Your task to perform on an android device: Do I have any events tomorrow? Image 0: 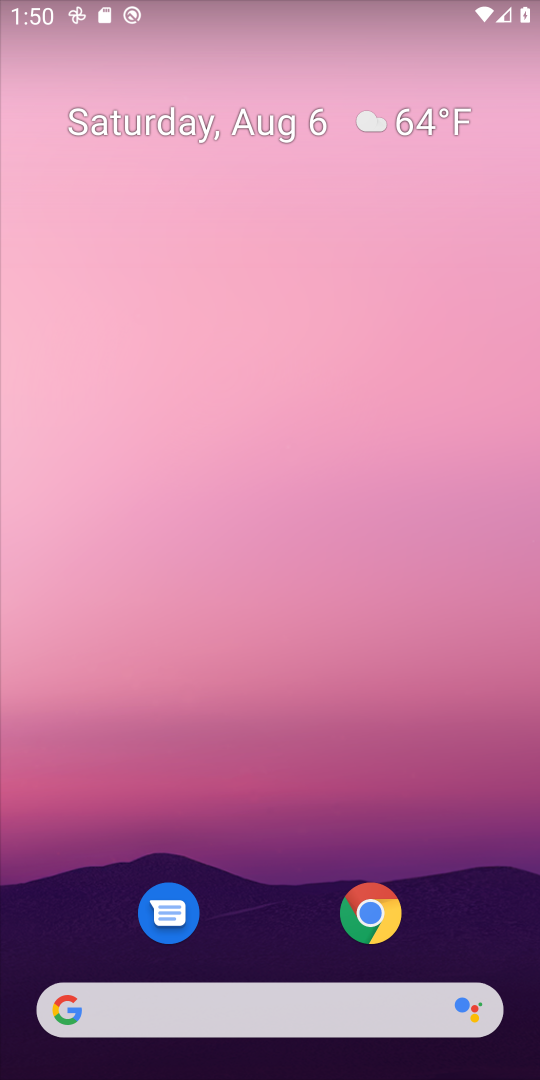
Step 0: press home button
Your task to perform on an android device: Do I have any events tomorrow? Image 1: 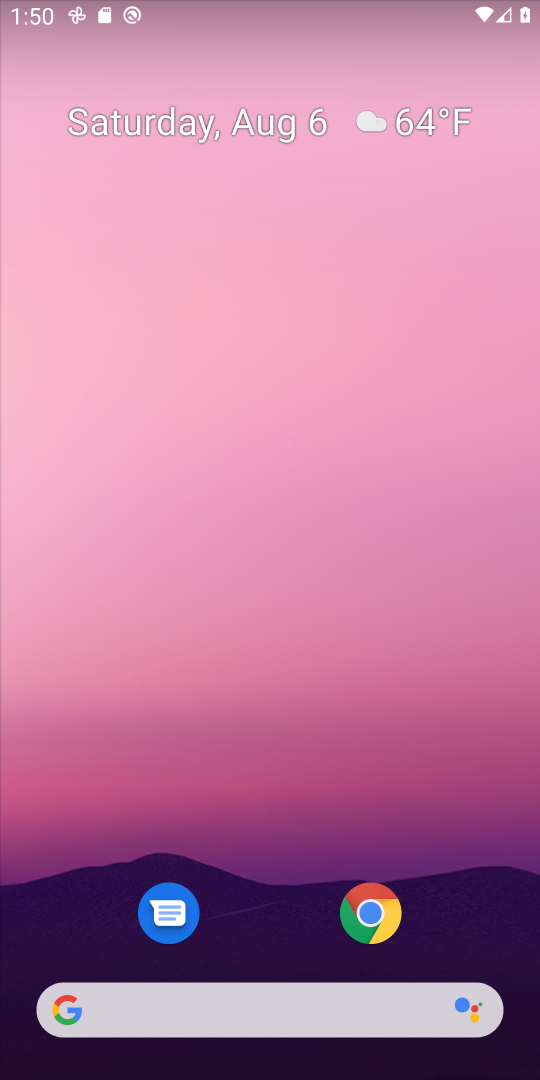
Step 1: drag from (448, 926) to (473, 364)
Your task to perform on an android device: Do I have any events tomorrow? Image 2: 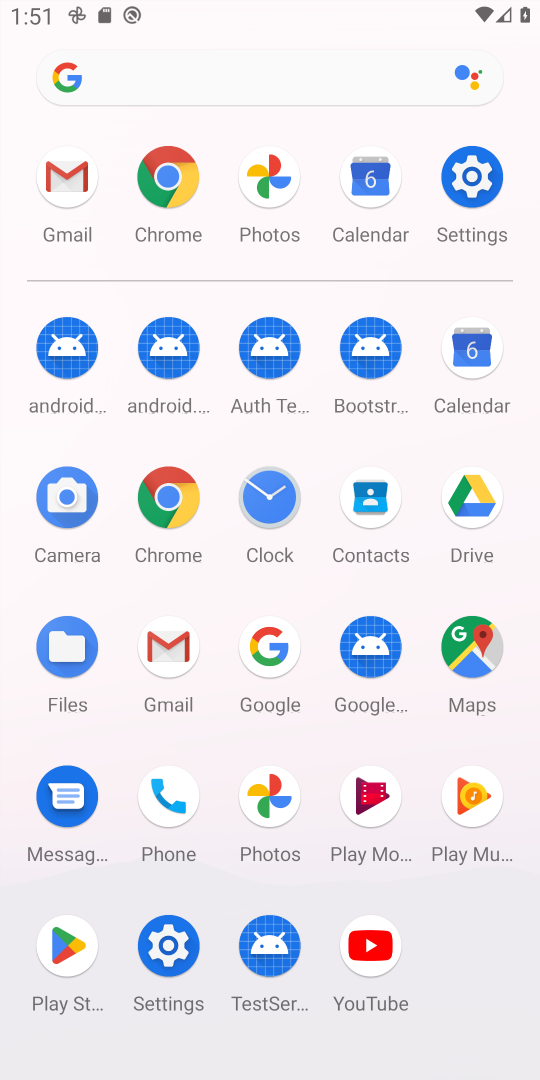
Step 2: click (470, 353)
Your task to perform on an android device: Do I have any events tomorrow? Image 3: 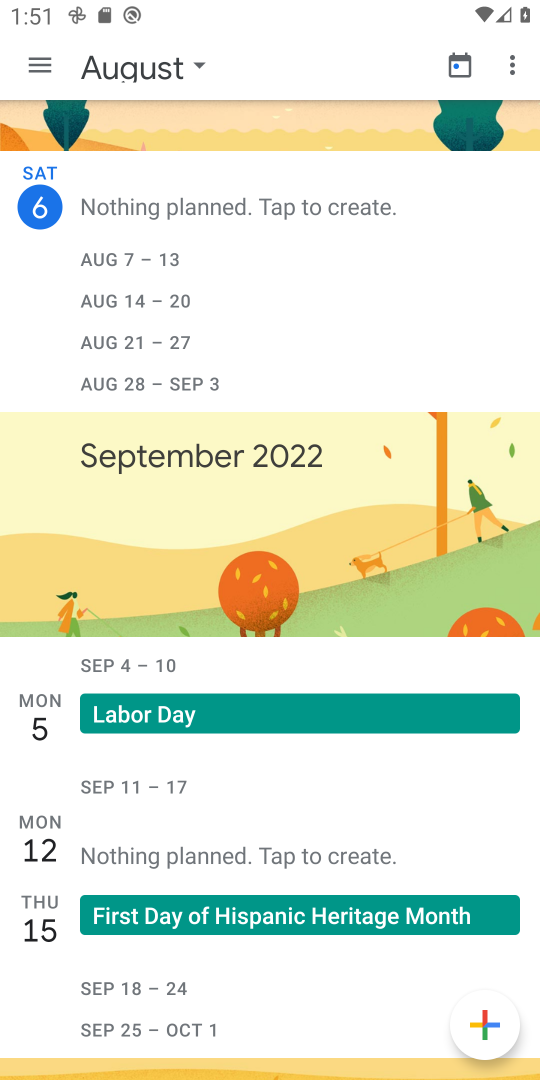
Step 3: click (199, 53)
Your task to perform on an android device: Do I have any events tomorrow? Image 4: 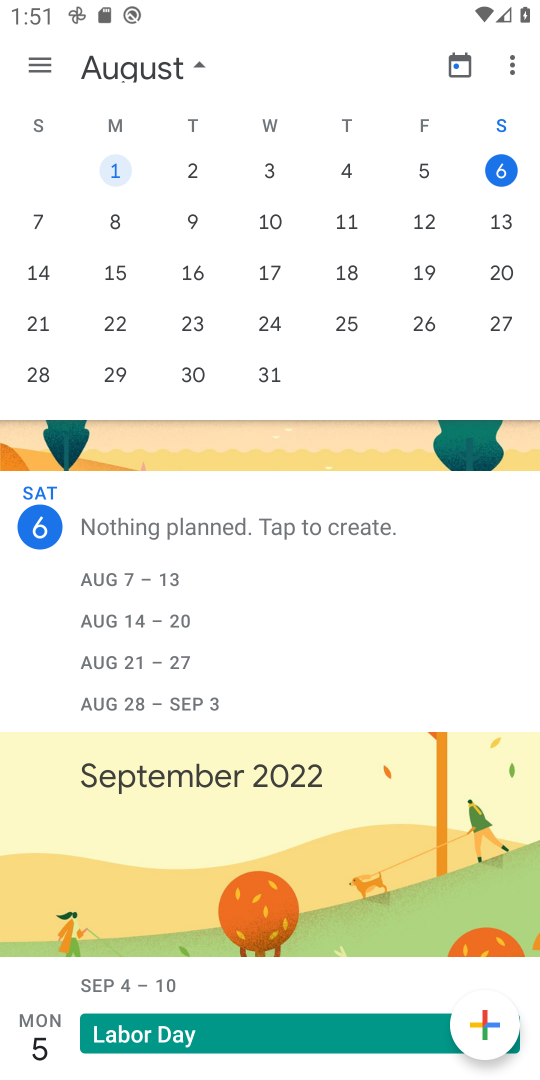
Step 4: click (35, 226)
Your task to perform on an android device: Do I have any events tomorrow? Image 5: 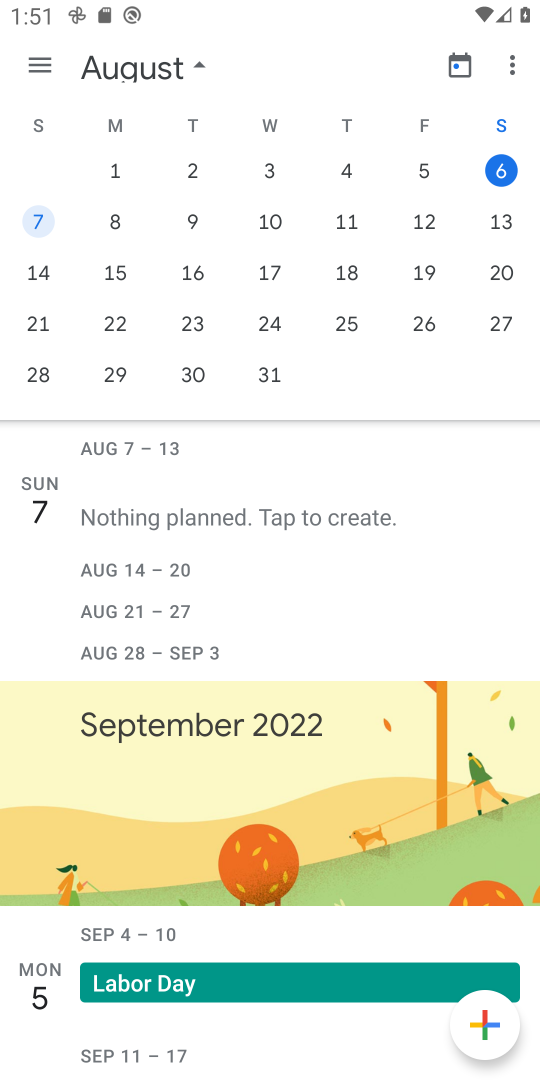
Step 5: task complete